Your task to perform on an android device: What's the news? Image 0: 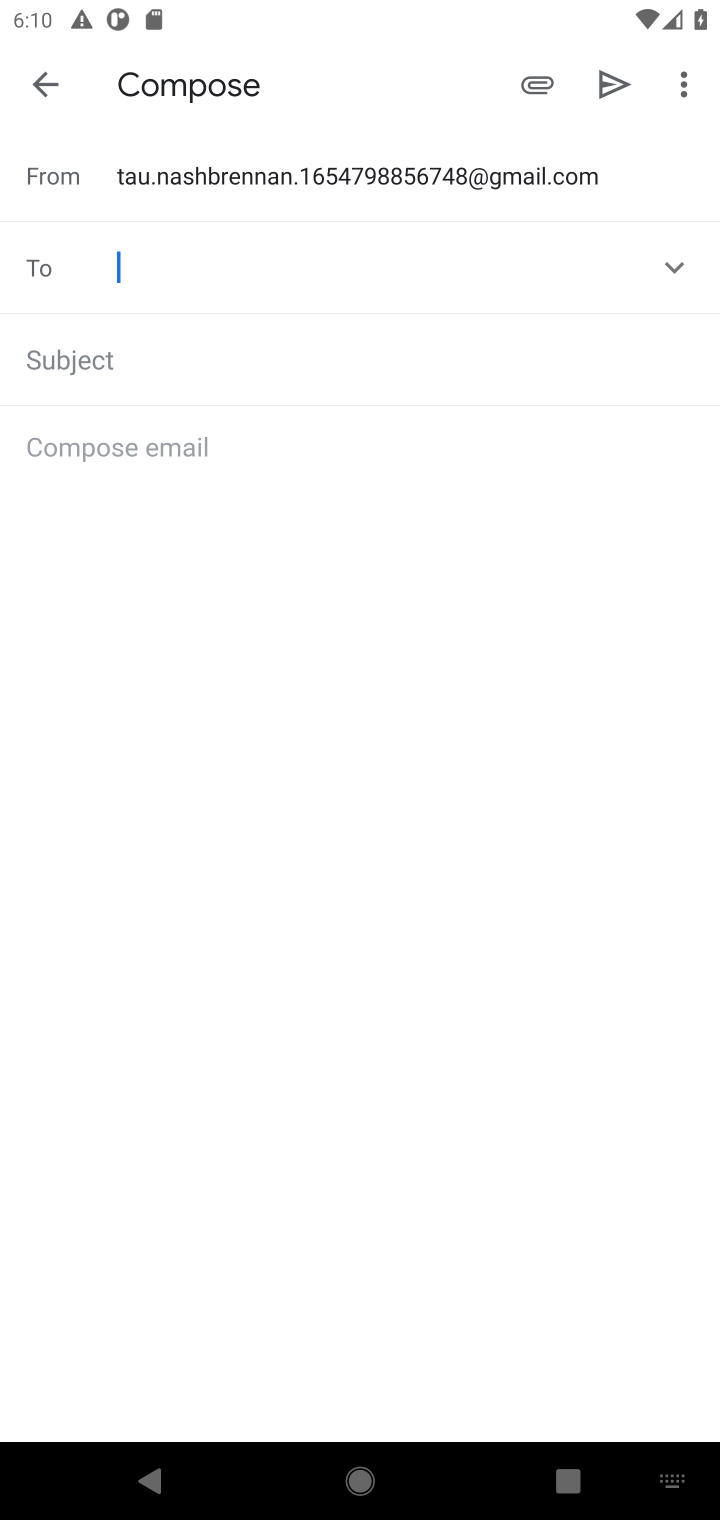
Step 0: press home button
Your task to perform on an android device: What's the news? Image 1: 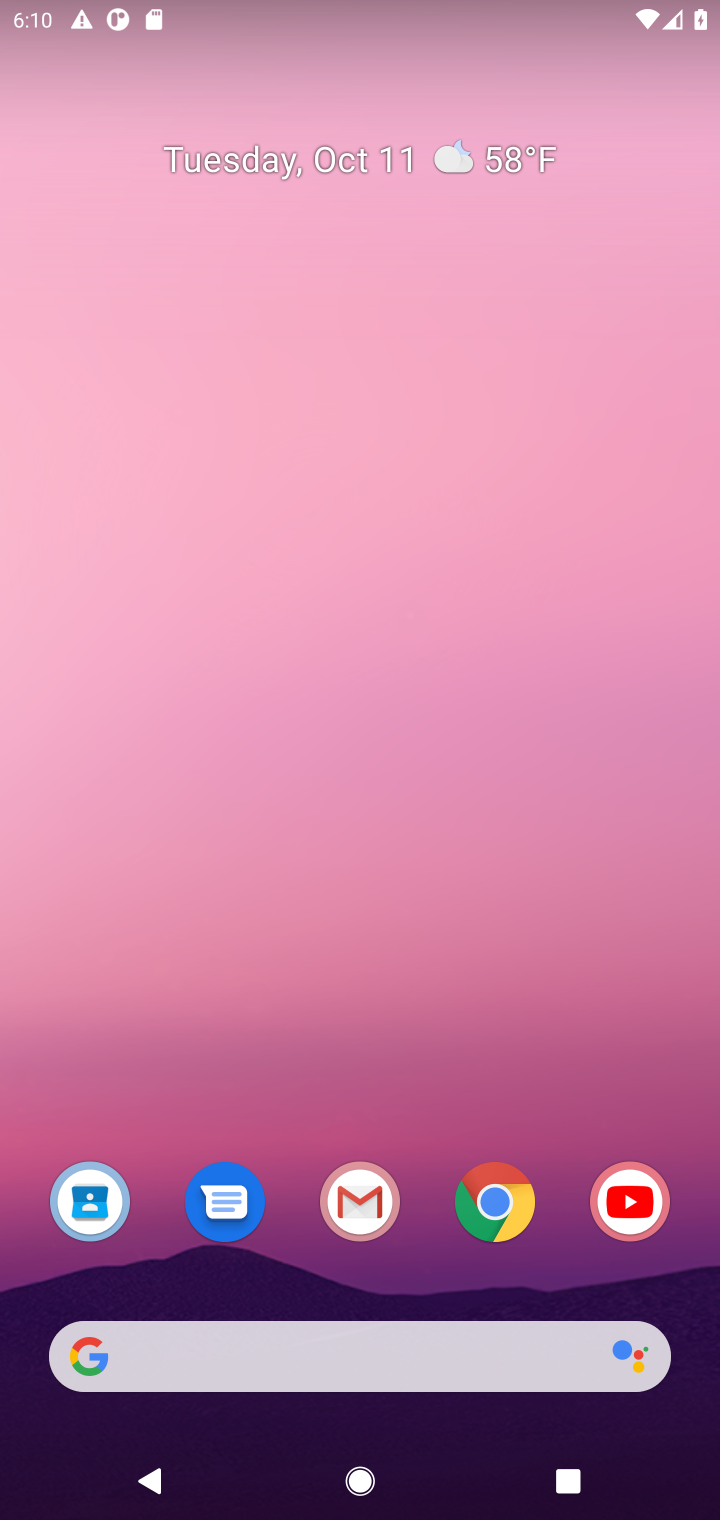
Step 1: click (497, 1211)
Your task to perform on an android device: What's the news? Image 2: 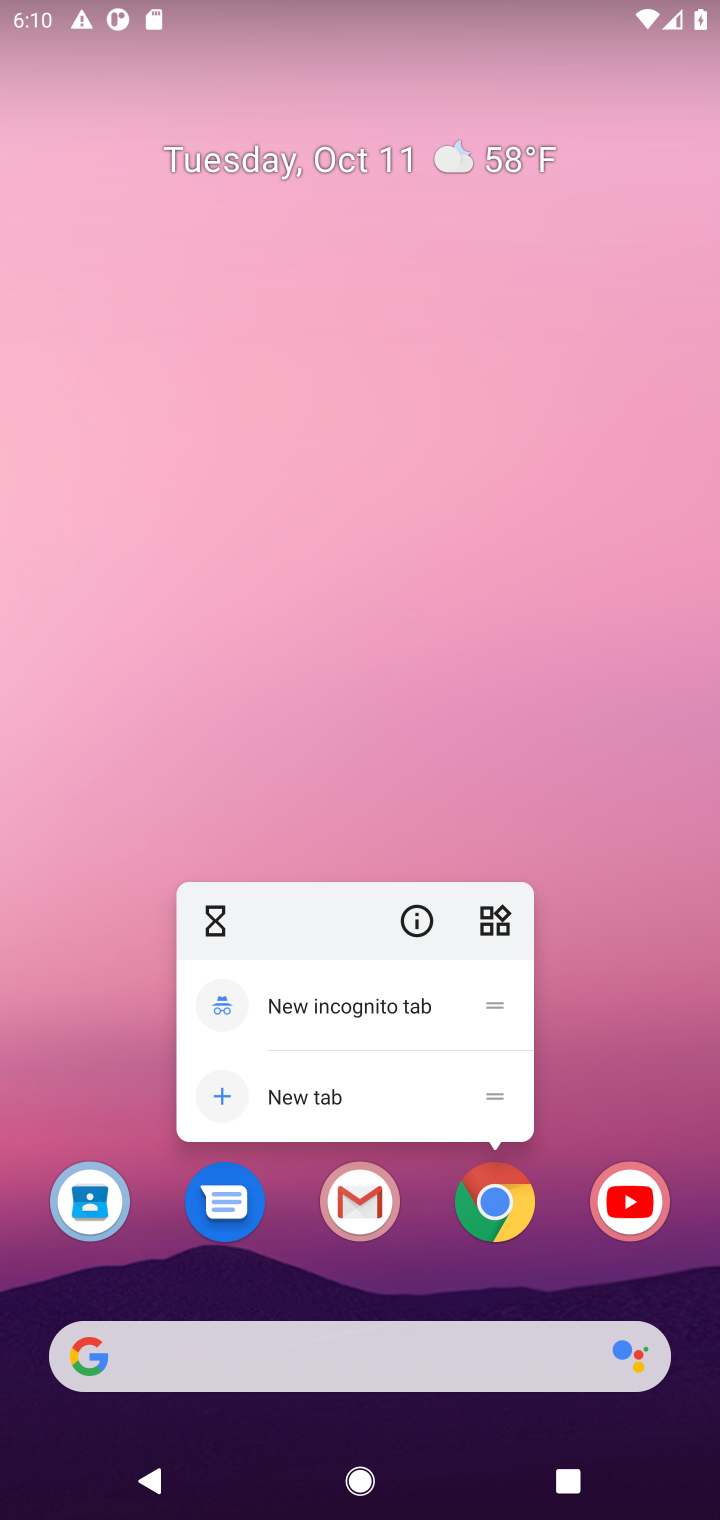
Step 2: click (527, 1253)
Your task to perform on an android device: What's the news? Image 3: 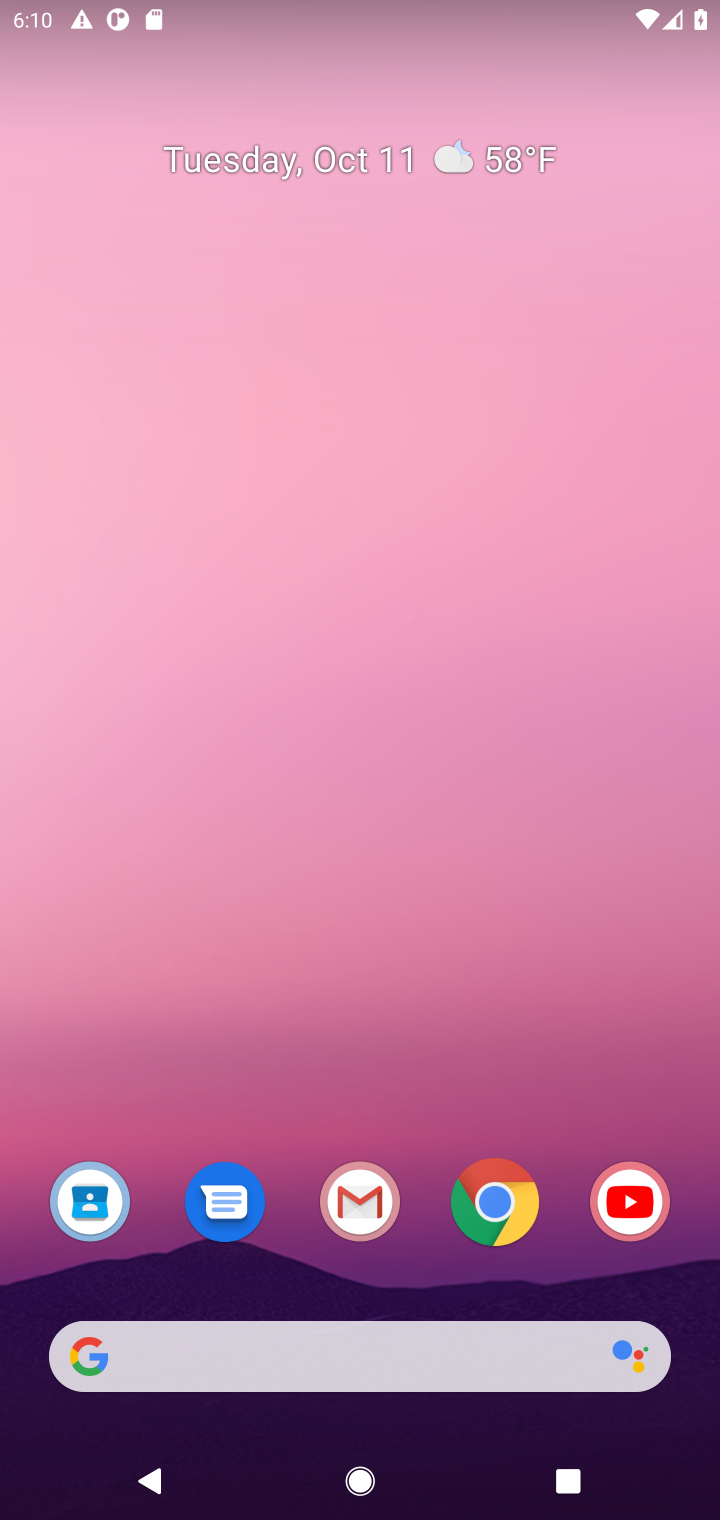
Step 3: click (506, 1235)
Your task to perform on an android device: What's the news? Image 4: 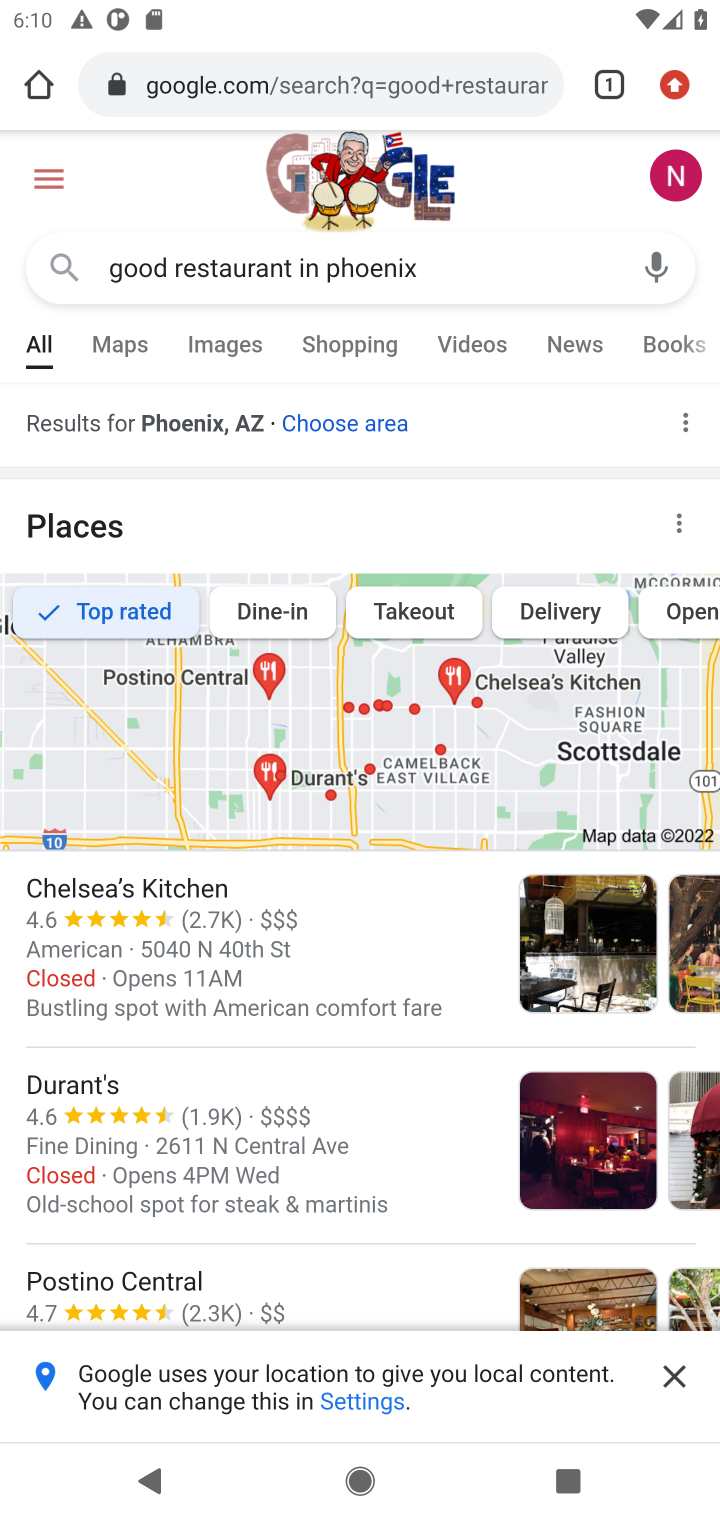
Step 4: click (160, 89)
Your task to perform on an android device: What's the news? Image 5: 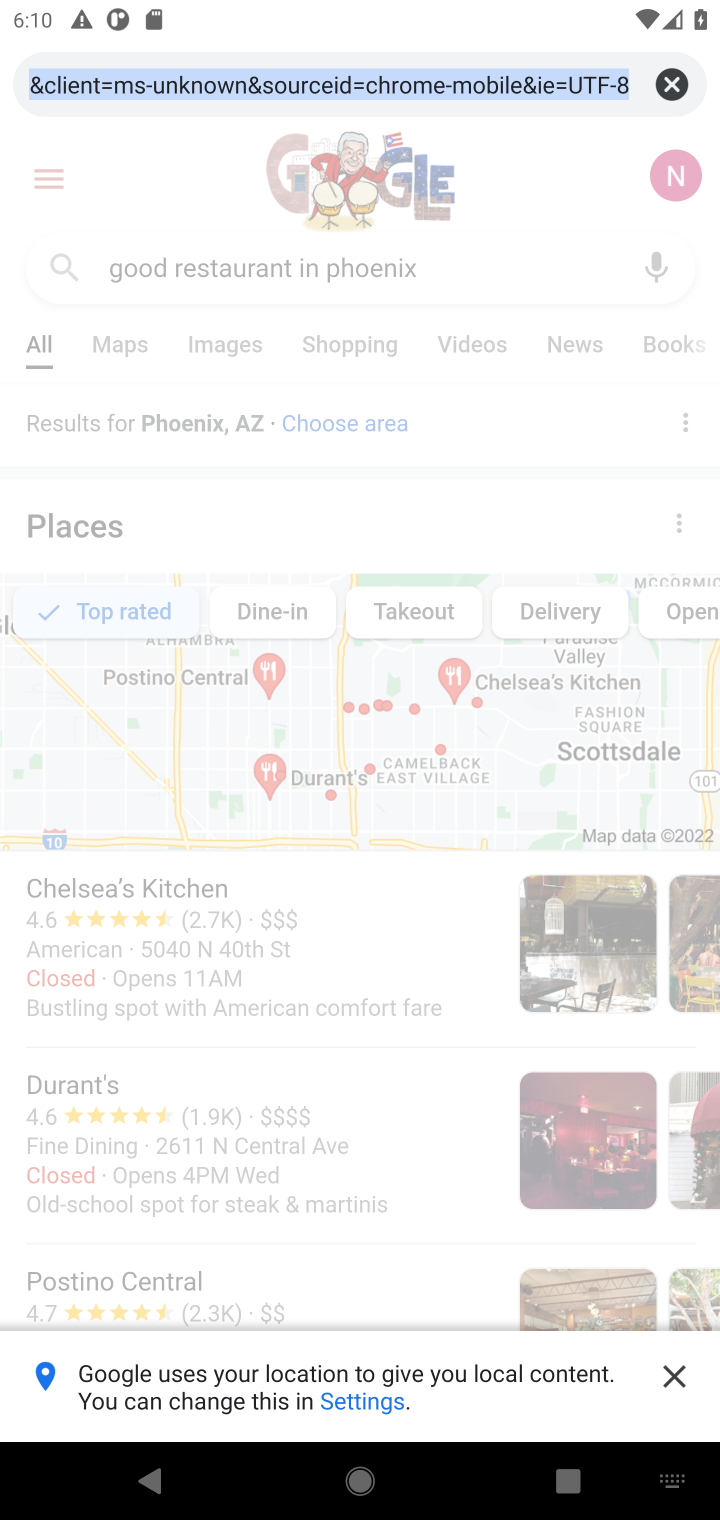
Step 5: type "whats the news"
Your task to perform on an android device: What's the news? Image 6: 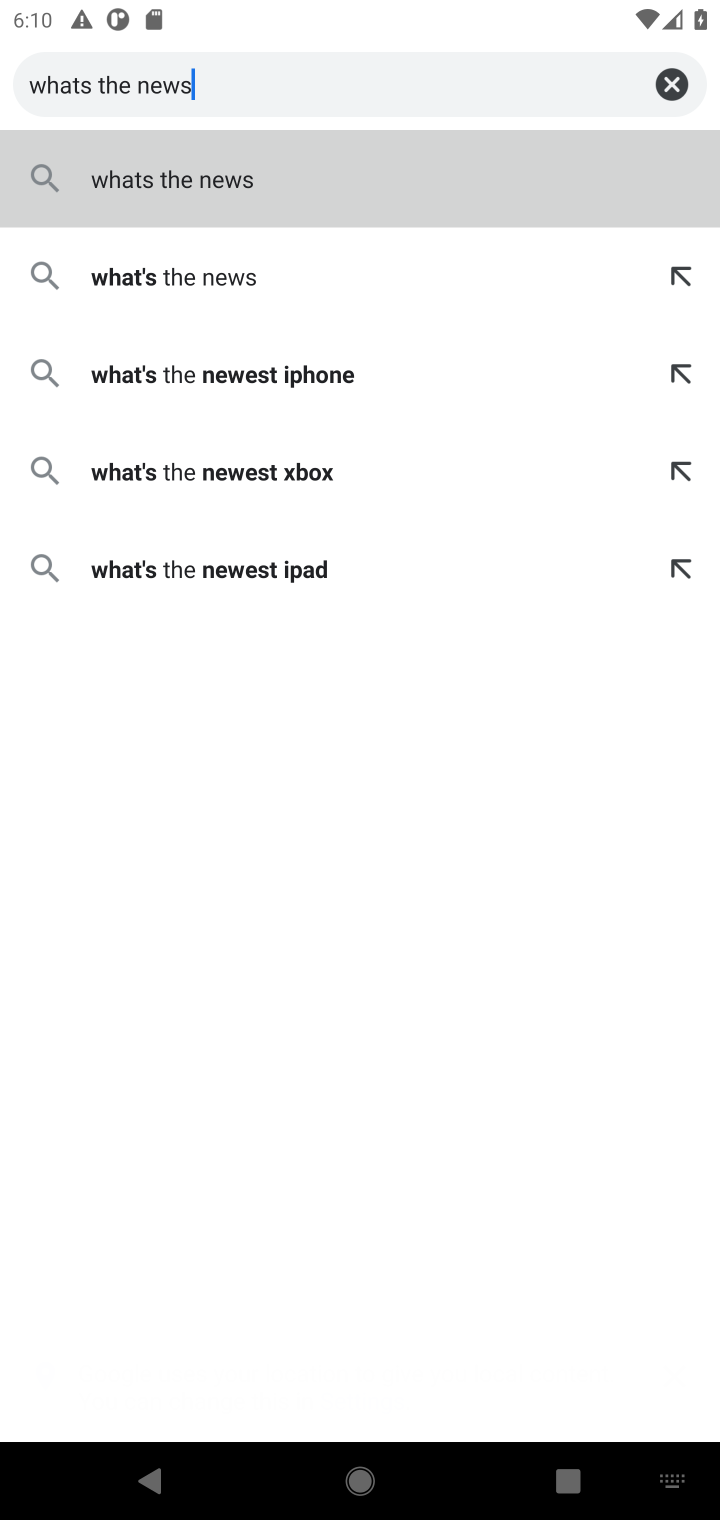
Step 6: click (226, 181)
Your task to perform on an android device: What's the news? Image 7: 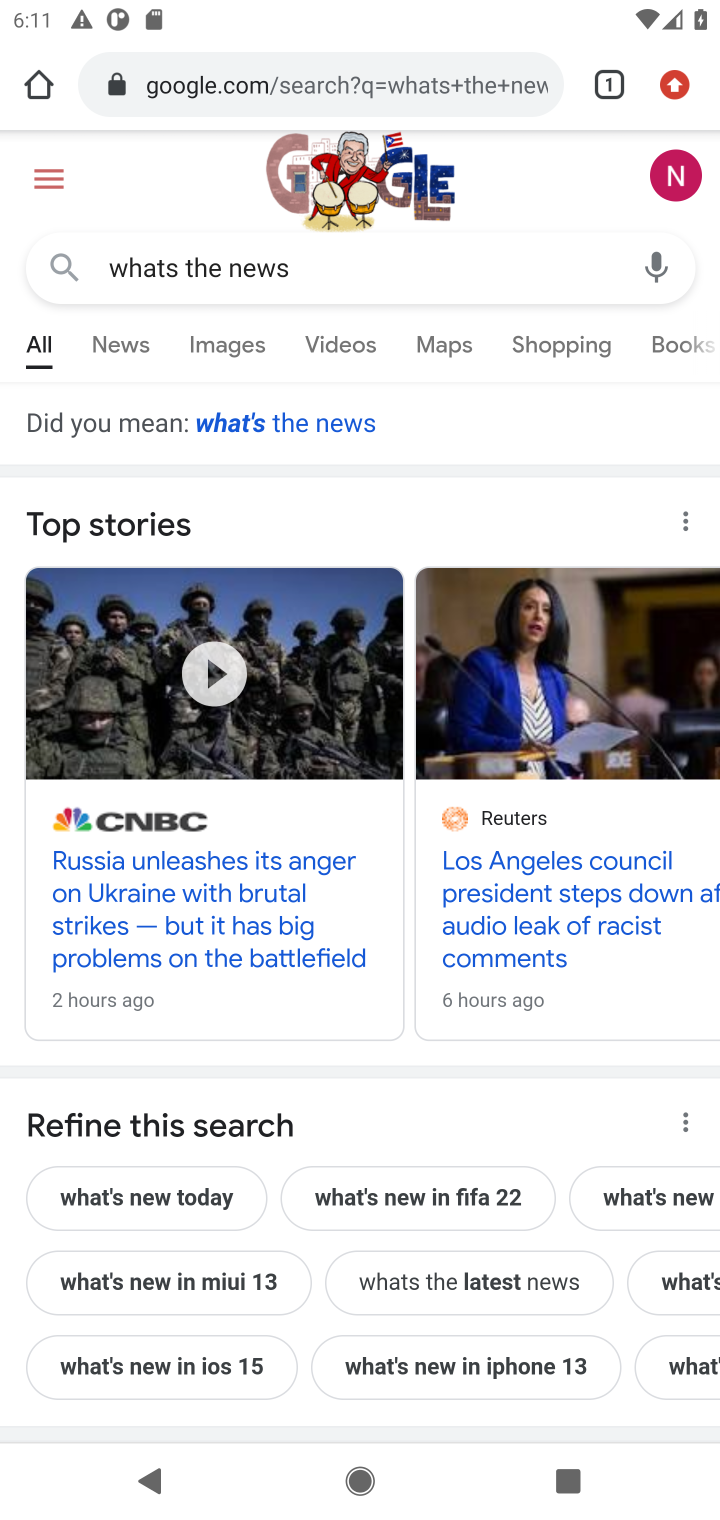
Step 7: click (265, 418)
Your task to perform on an android device: What's the news? Image 8: 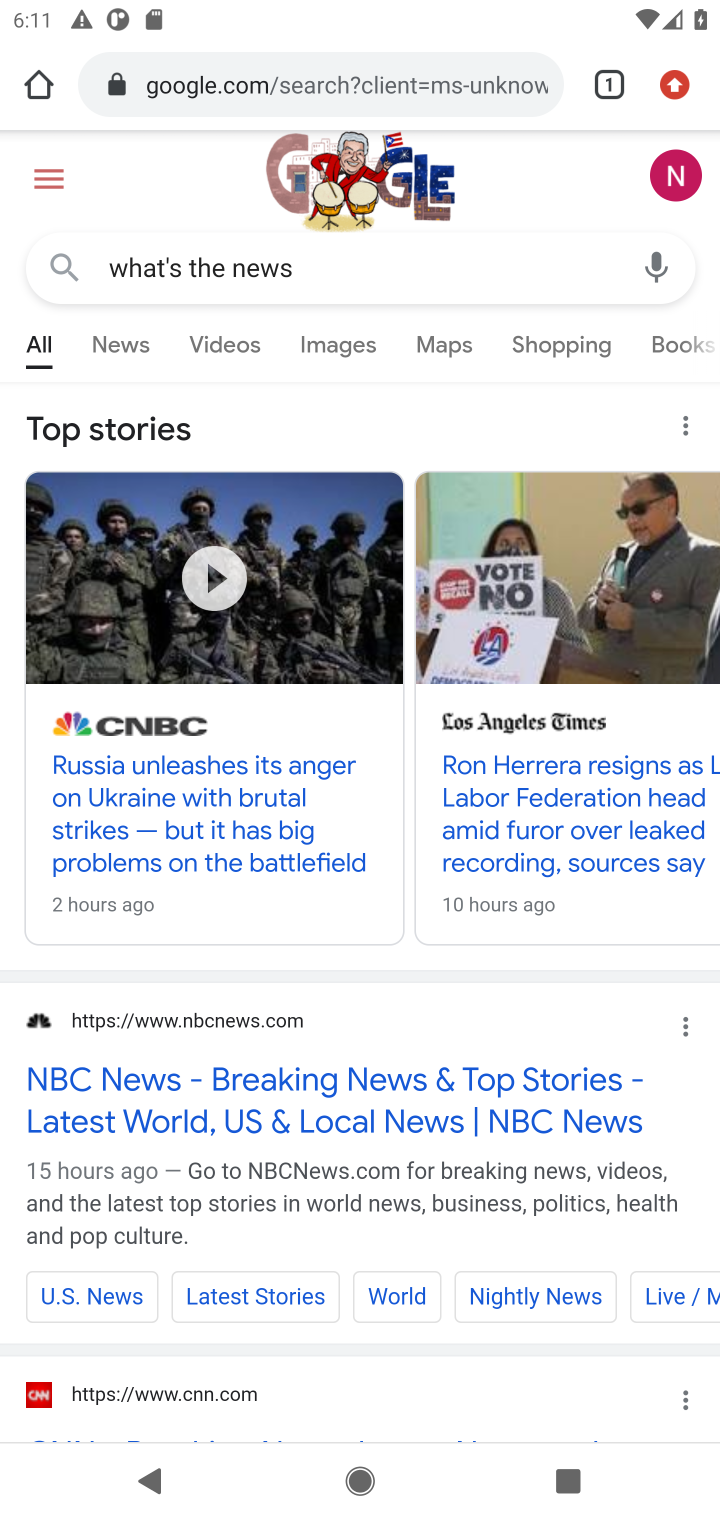
Step 8: click (135, 350)
Your task to perform on an android device: What's the news? Image 9: 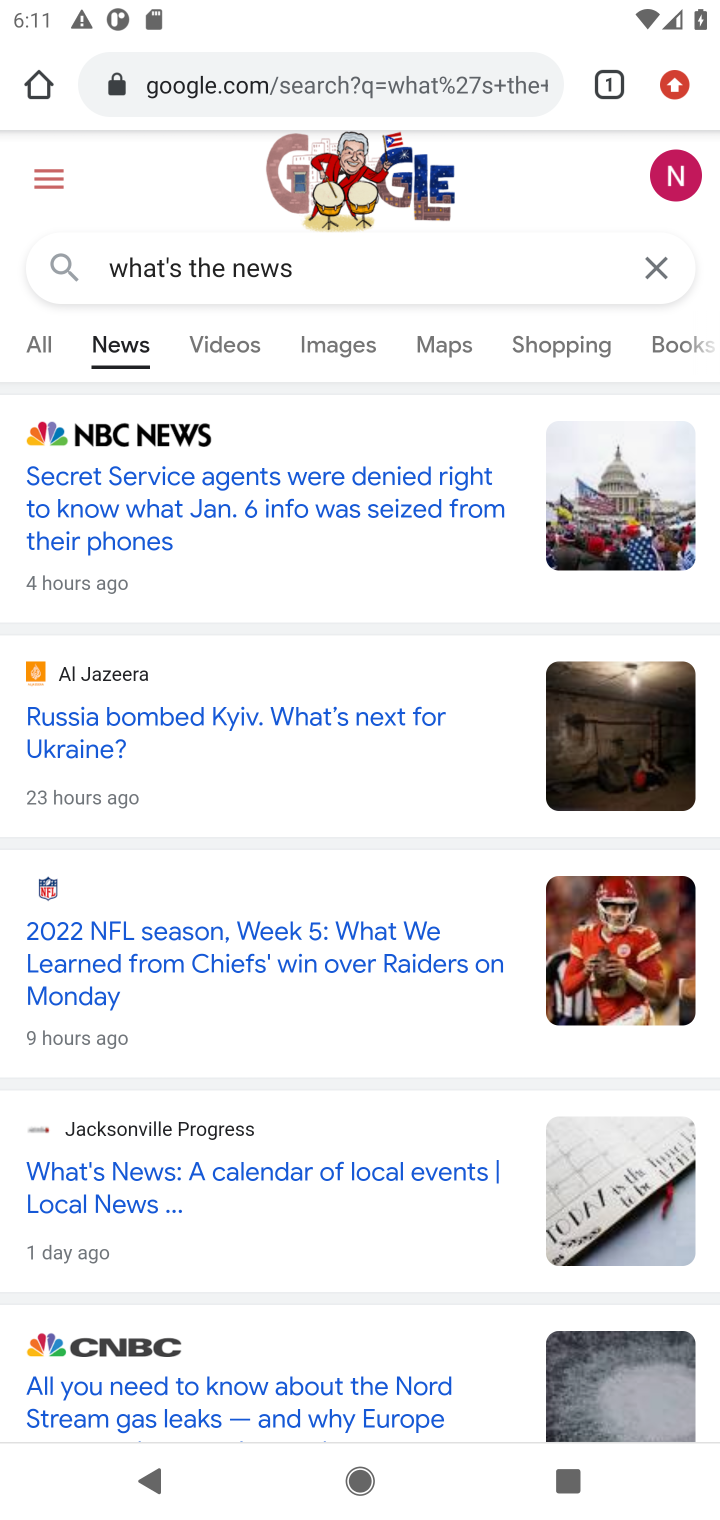
Step 9: task complete